Your task to perform on an android device: turn off javascript in the chrome app Image 0: 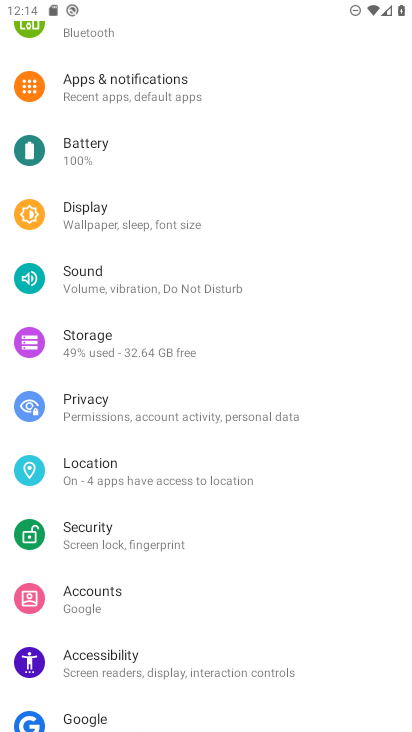
Step 0: press home button
Your task to perform on an android device: turn off javascript in the chrome app Image 1: 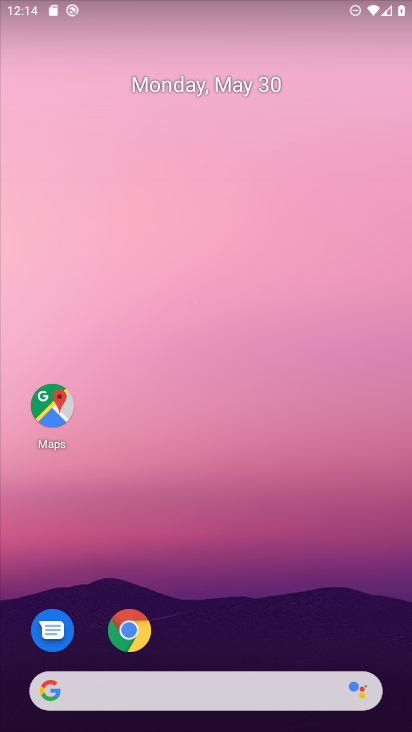
Step 1: click (137, 629)
Your task to perform on an android device: turn off javascript in the chrome app Image 2: 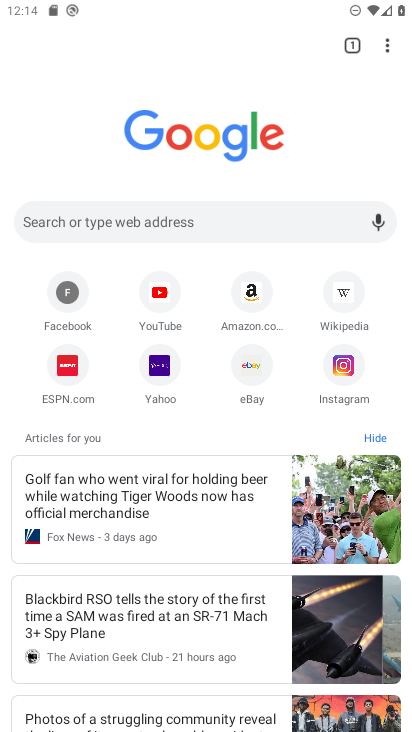
Step 2: drag from (390, 44) to (260, 383)
Your task to perform on an android device: turn off javascript in the chrome app Image 3: 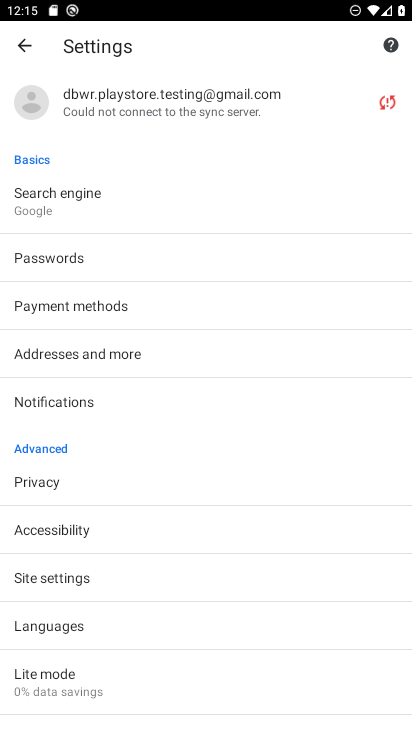
Step 3: click (75, 581)
Your task to perform on an android device: turn off javascript in the chrome app Image 4: 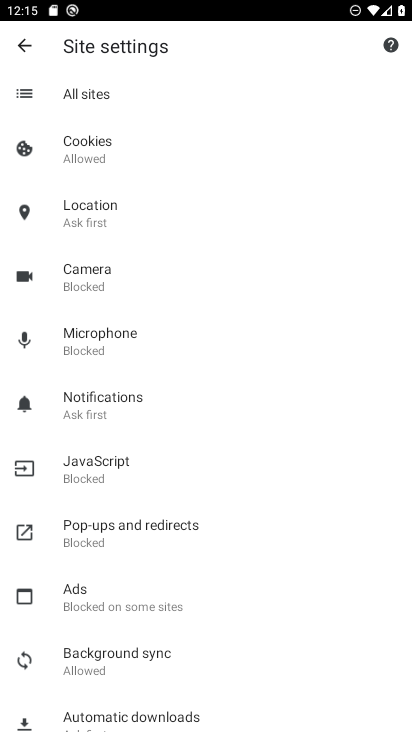
Step 4: click (111, 466)
Your task to perform on an android device: turn off javascript in the chrome app Image 5: 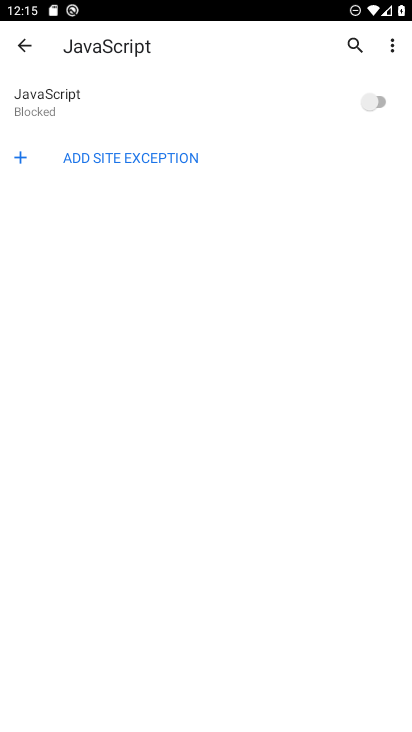
Step 5: task complete